Your task to perform on an android device: turn off wifi Image 0: 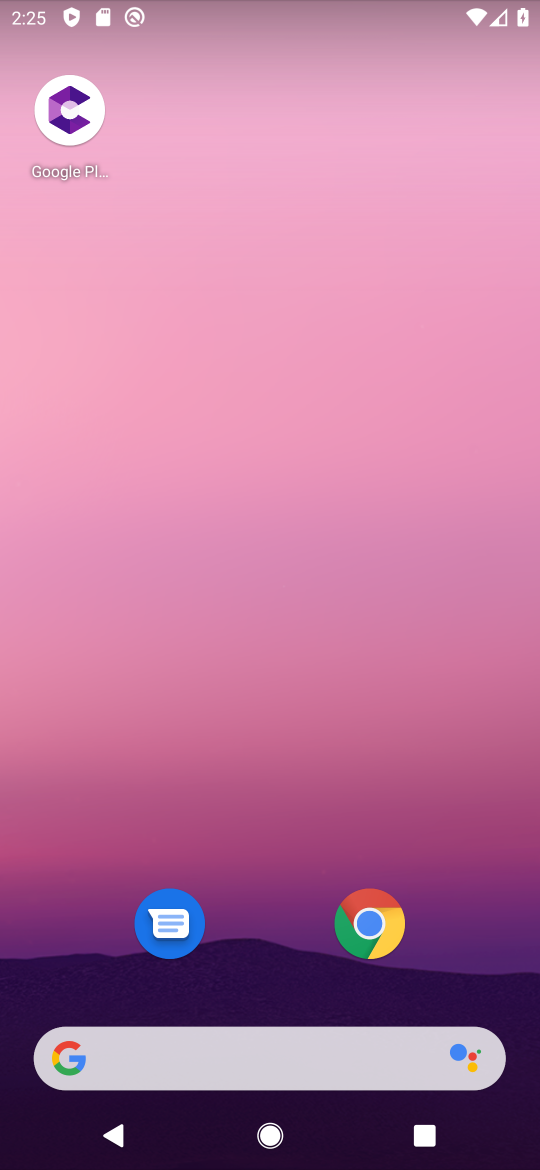
Step 0: drag from (338, 724) to (12, 464)
Your task to perform on an android device: turn off wifi Image 1: 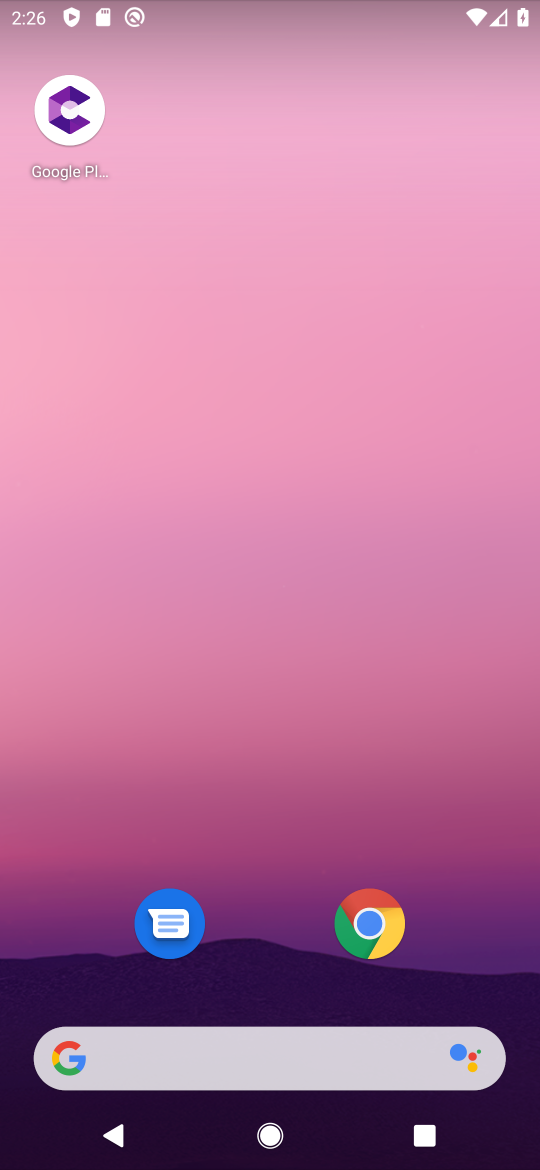
Step 1: drag from (354, 870) to (445, 64)
Your task to perform on an android device: turn off wifi Image 2: 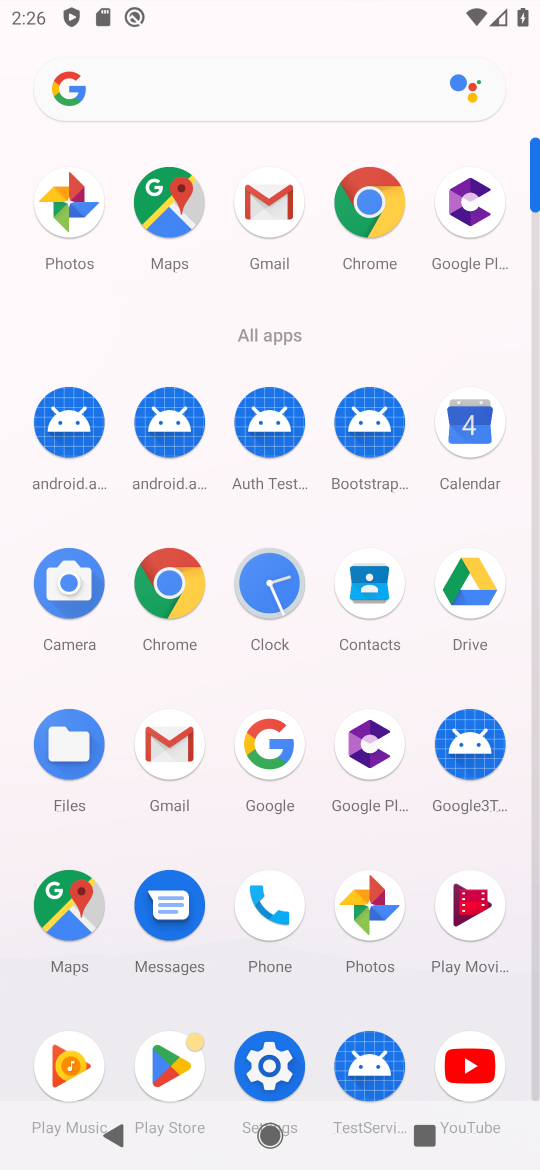
Step 2: click (286, 1067)
Your task to perform on an android device: turn off wifi Image 3: 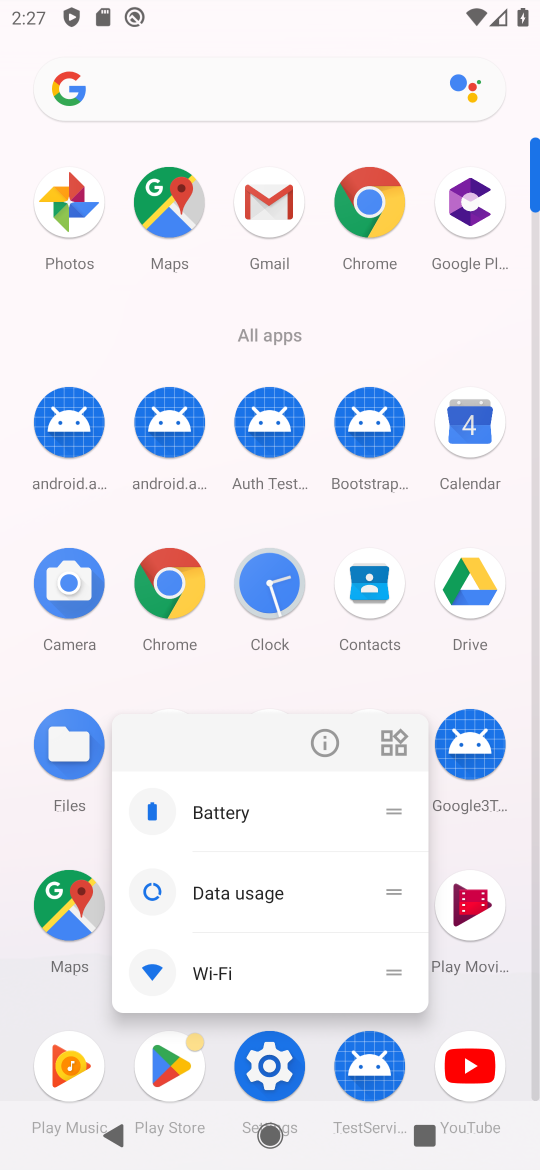
Step 3: click (286, 1067)
Your task to perform on an android device: turn off wifi Image 4: 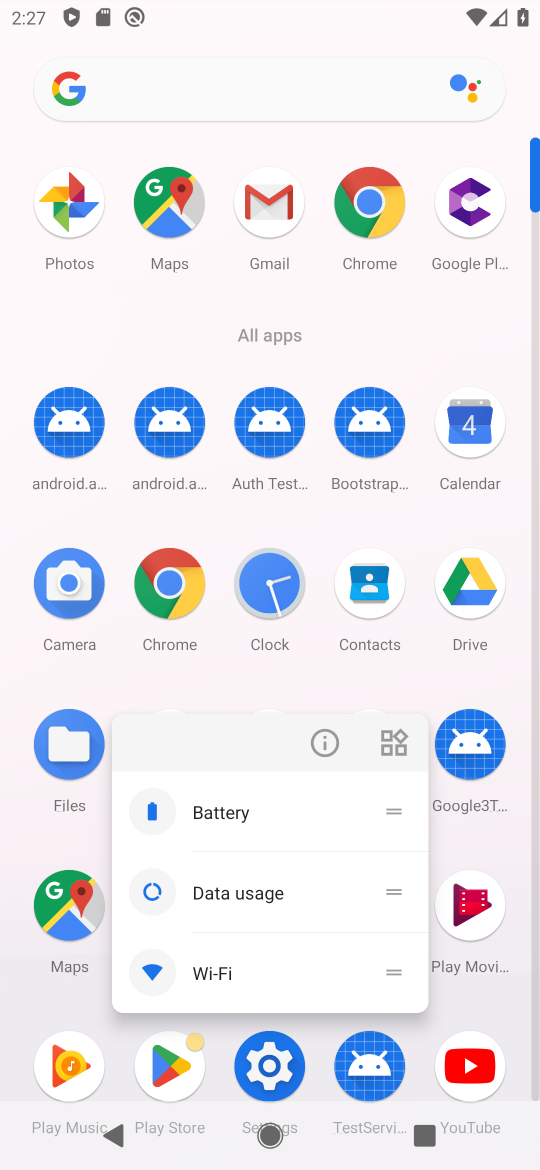
Step 4: click (251, 1054)
Your task to perform on an android device: turn off wifi Image 5: 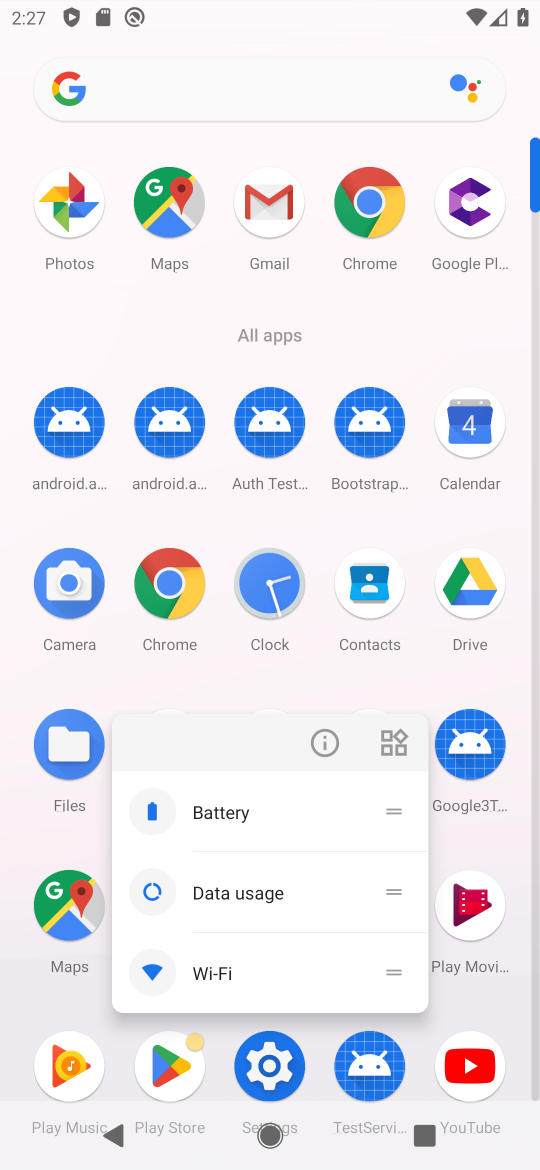
Step 5: click (251, 1047)
Your task to perform on an android device: turn off wifi Image 6: 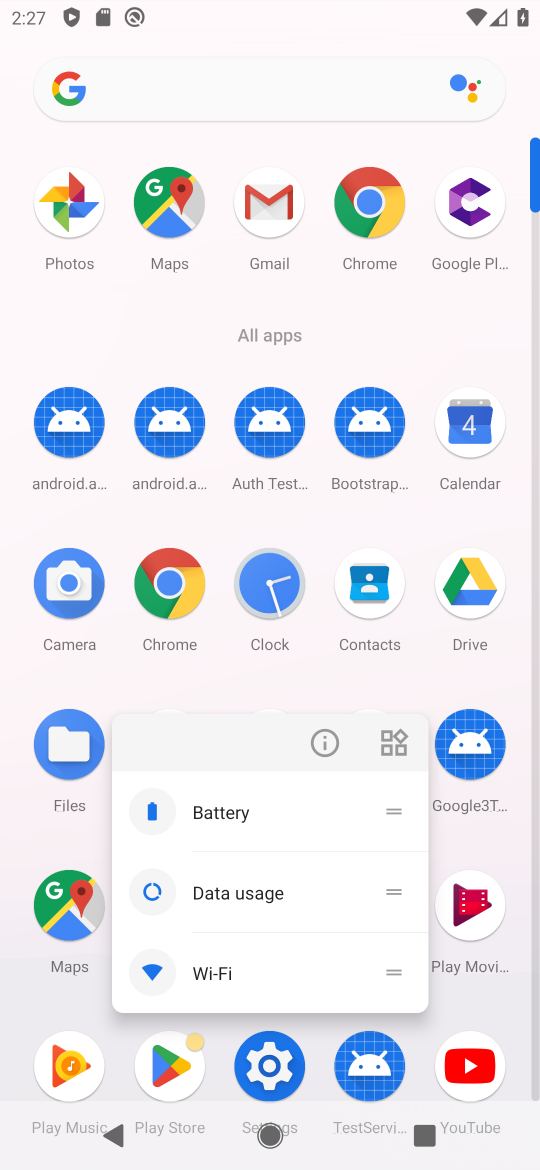
Step 6: click (264, 1079)
Your task to perform on an android device: turn off wifi Image 7: 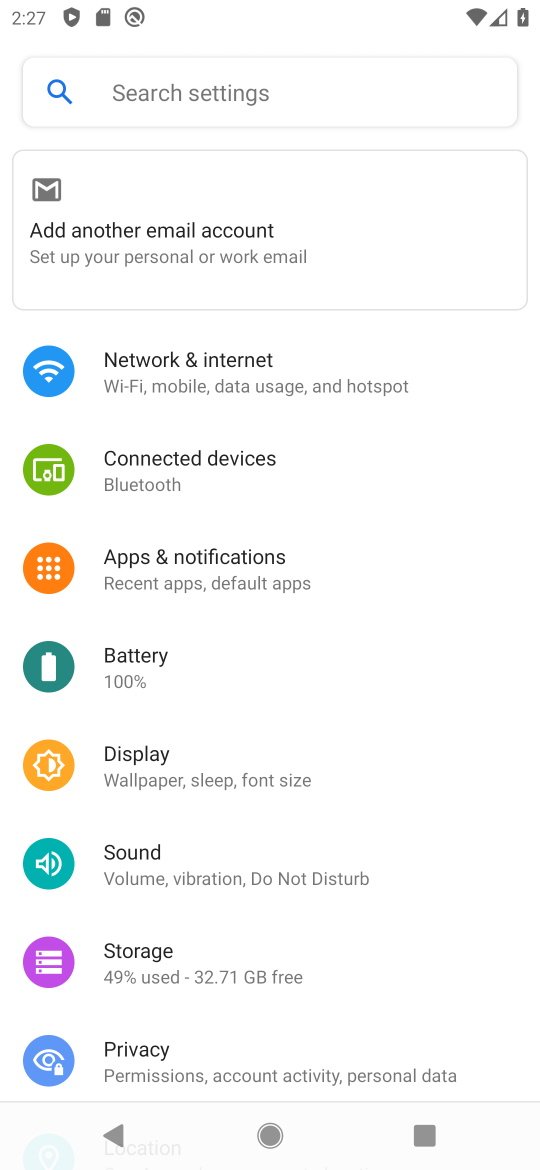
Step 7: click (185, 397)
Your task to perform on an android device: turn off wifi Image 8: 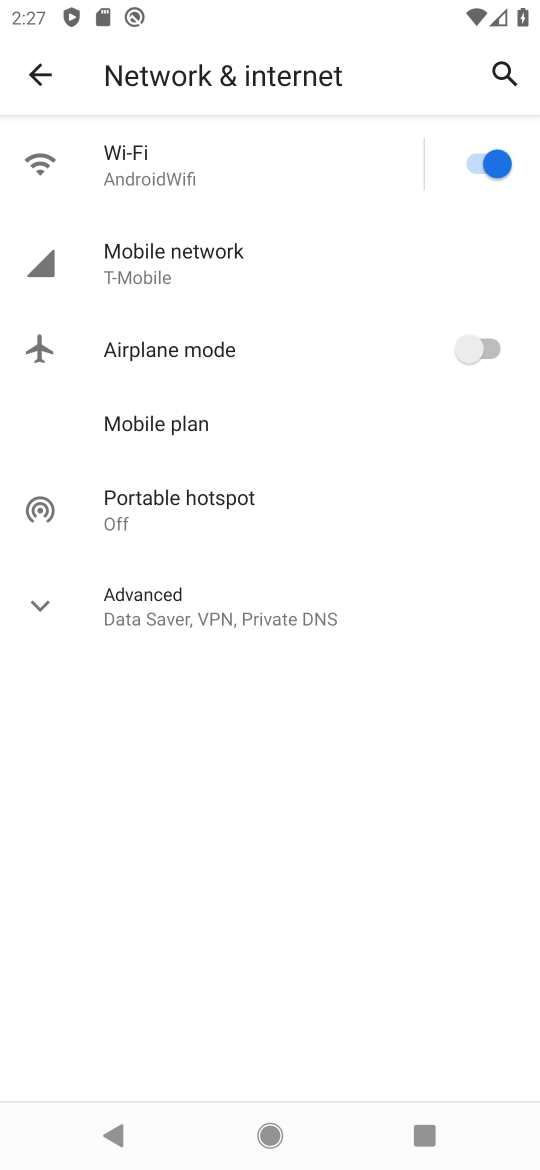
Step 8: click (488, 163)
Your task to perform on an android device: turn off wifi Image 9: 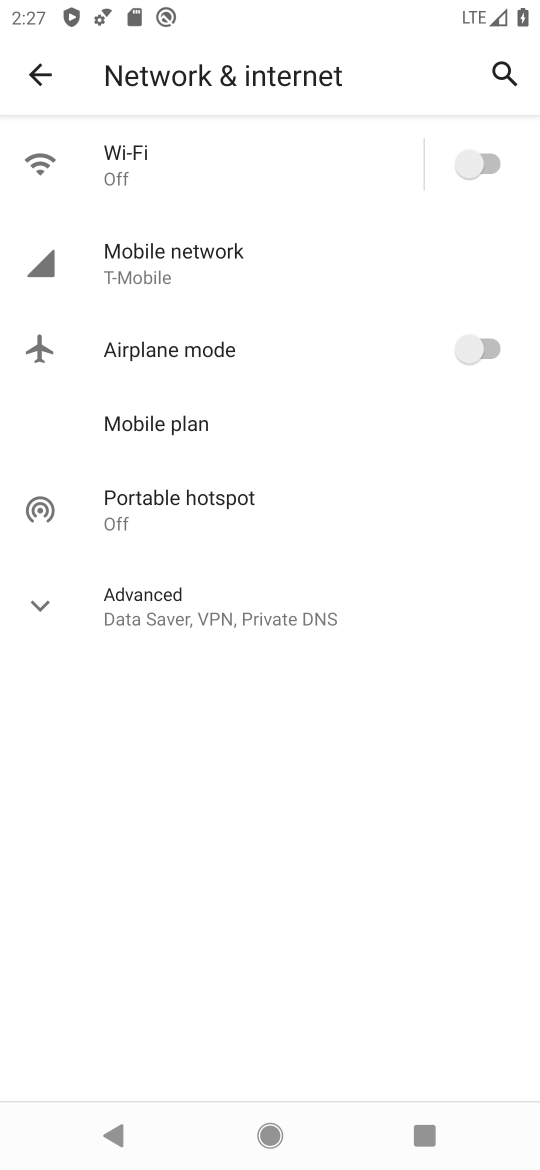
Step 9: task complete